Your task to perform on an android device: turn on javascript in the chrome app Image 0: 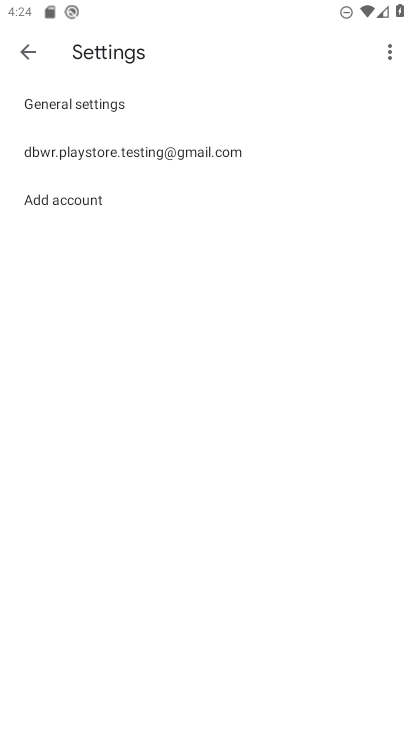
Step 0: press home button
Your task to perform on an android device: turn on javascript in the chrome app Image 1: 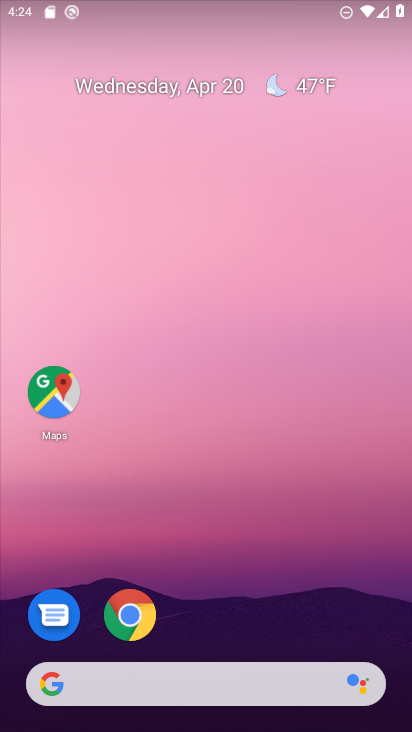
Step 1: drag from (284, 626) to (244, 10)
Your task to perform on an android device: turn on javascript in the chrome app Image 2: 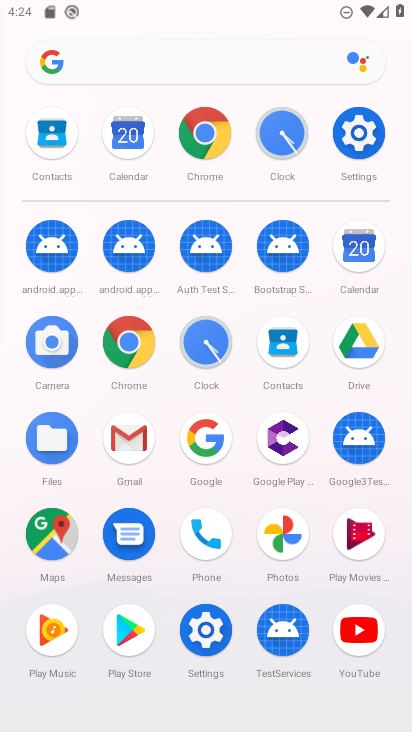
Step 2: click (368, 134)
Your task to perform on an android device: turn on javascript in the chrome app Image 3: 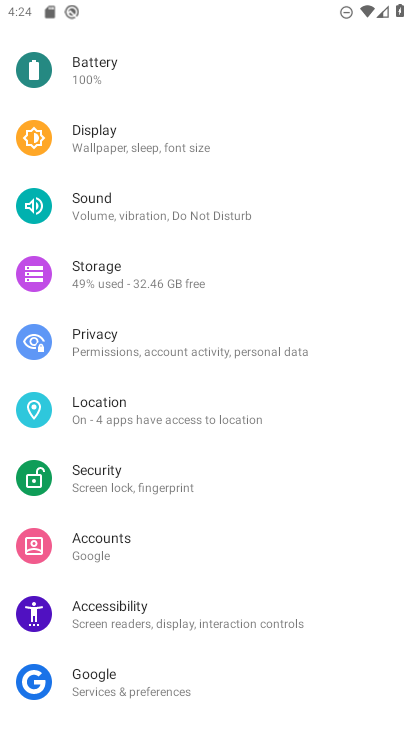
Step 3: press home button
Your task to perform on an android device: turn on javascript in the chrome app Image 4: 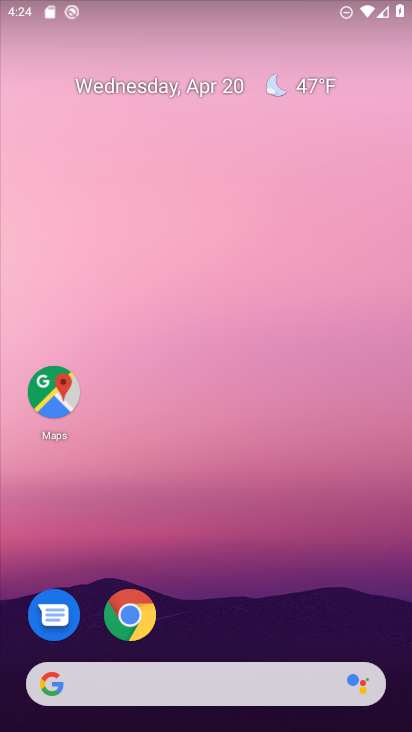
Step 4: click (147, 609)
Your task to perform on an android device: turn on javascript in the chrome app Image 5: 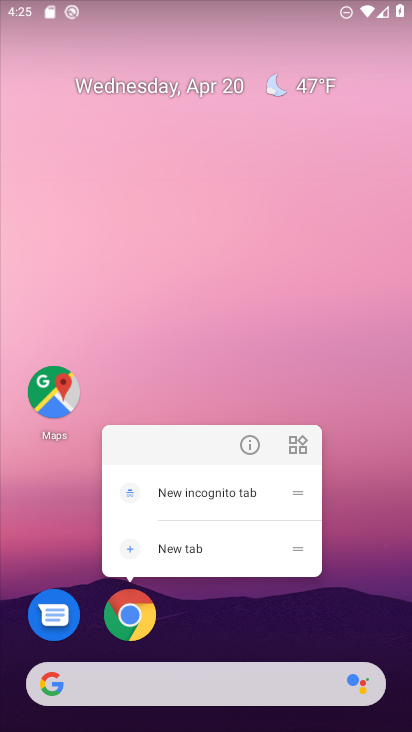
Step 5: click (143, 615)
Your task to perform on an android device: turn on javascript in the chrome app Image 6: 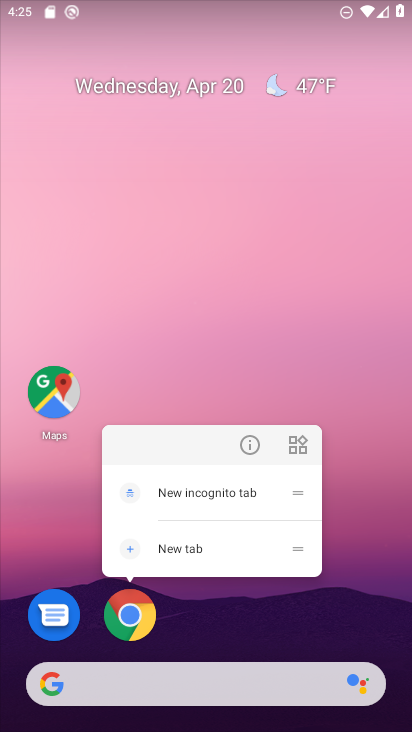
Step 6: click (142, 615)
Your task to perform on an android device: turn on javascript in the chrome app Image 7: 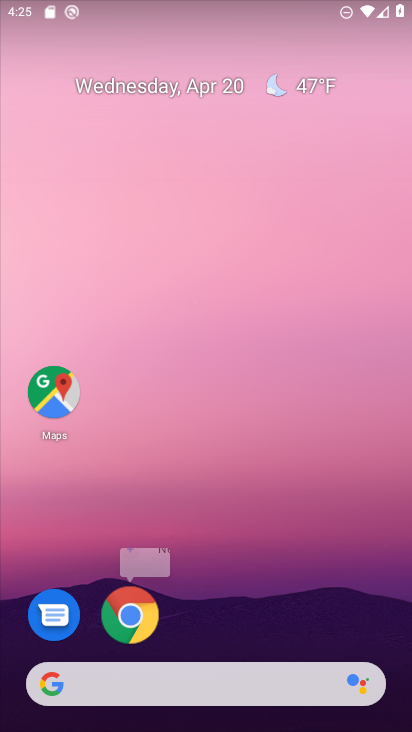
Step 7: click (142, 615)
Your task to perform on an android device: turn on javascript in the chrome app Image 8: 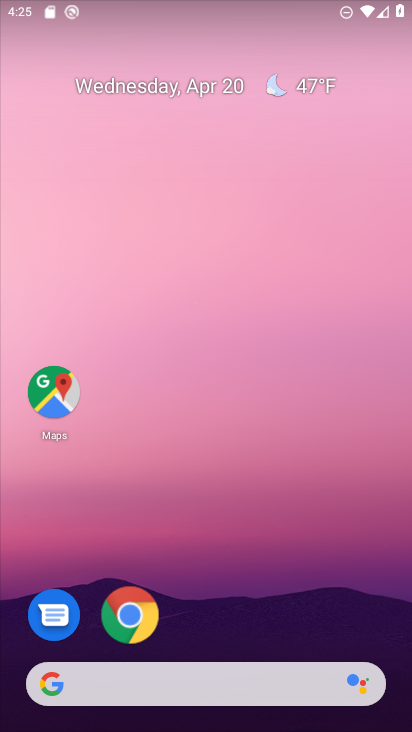
Step 8: click (142, 615)
Your task to perform on an android device: turn on javascript in the chrome app Image 9: 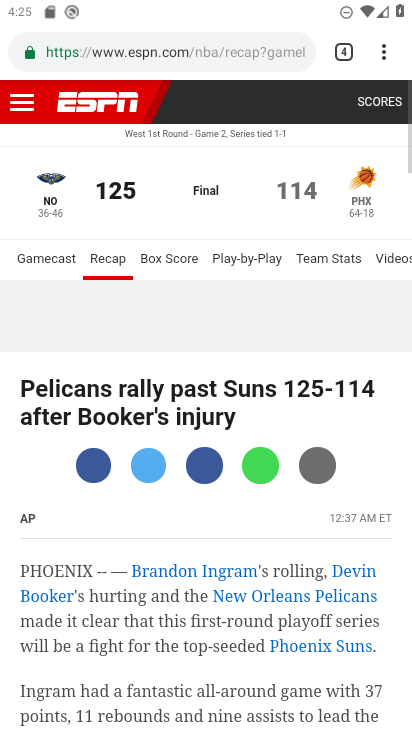
Step 9: click (383, 41)
Your task to perform on an android device: turn on javascript in the chrome app Image 10: 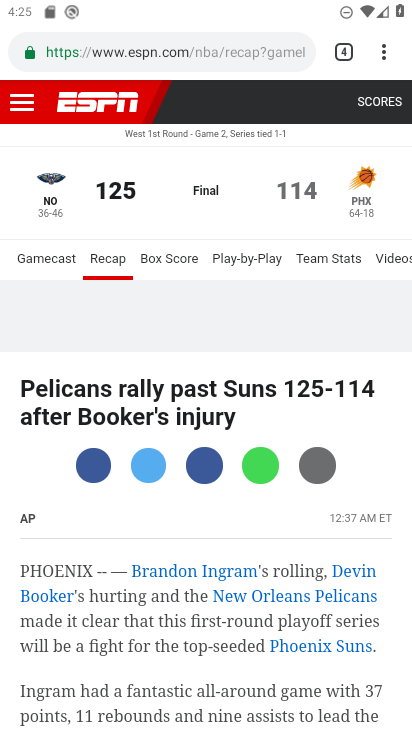
Step 10: click (383, 53)
Your task to perform on an android device: turn on javascript in the chrome app Image 11: 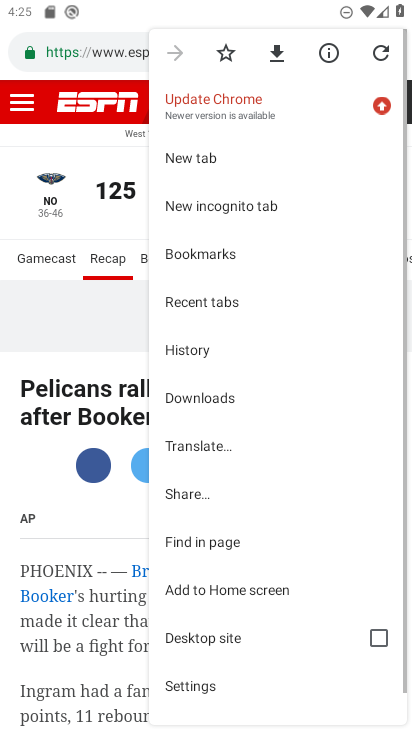
Step 11: click (385, 52)
Your task to perform on an android device: turn on javascript in the chrome app Image 12: 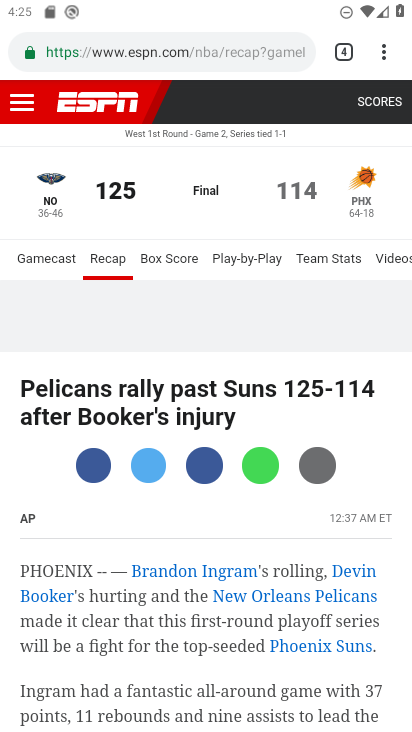
Step 12: click (384, 48)
Your task to perform on an android device: turn on javascript in the chrome app Image 13: 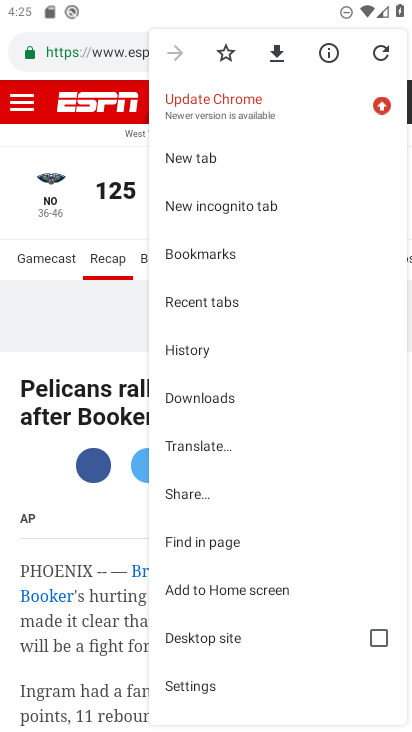
Step 13: click (192, 682)
Your task to perform on an android device: turn on javascript in the chrome app Image 14: 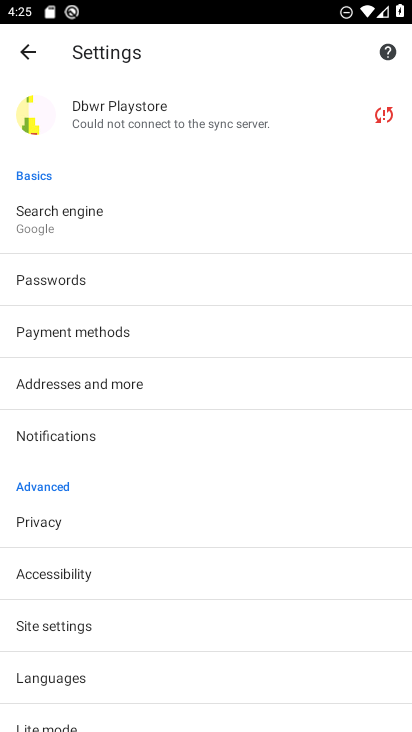
Step 14: click (49, 632)
Your task to perform on an android device: turn on javascript in the chrome app Image 15: 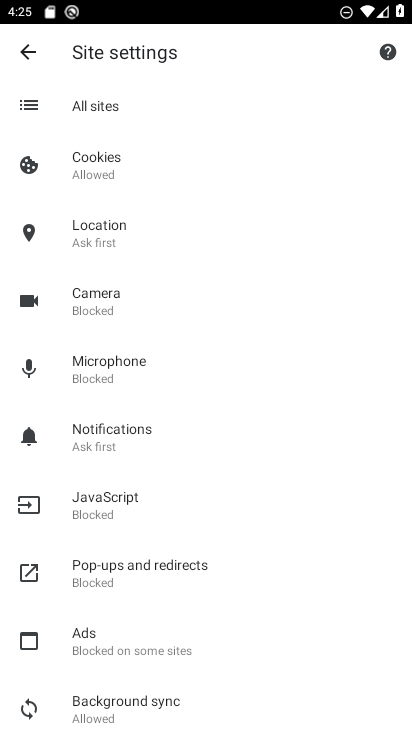
Step 15: click (137, 503)
Your task to perform on an android device: turn on javascript in the chrome app Image 16: 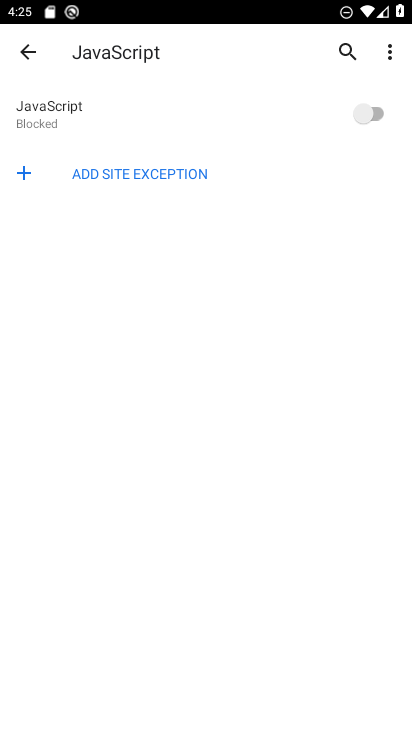
Step 16: click (367, 116)
Your task to perform on an android device: turn on javascript in the chrome app Image 17: 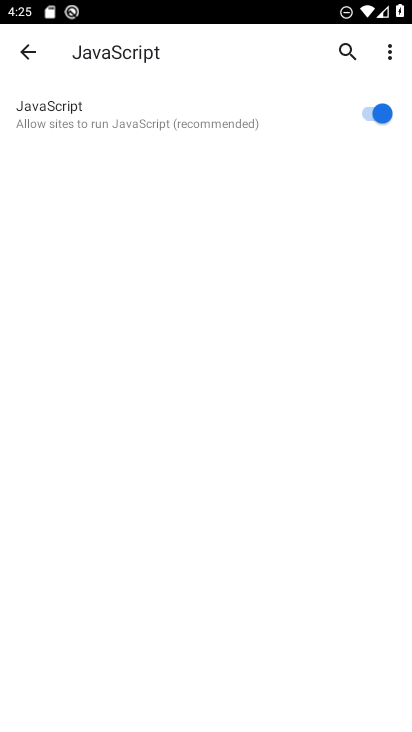
Step 17: task complete